Your task to perform on an android device: Open the web browser Image 0: 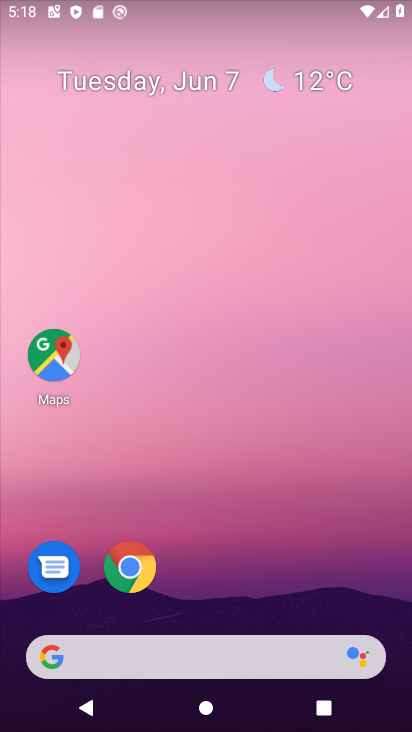
Step 0: drag from (196, 522) to (128, 44)
Your task to perform on an android device: Open the web browser Image 1: 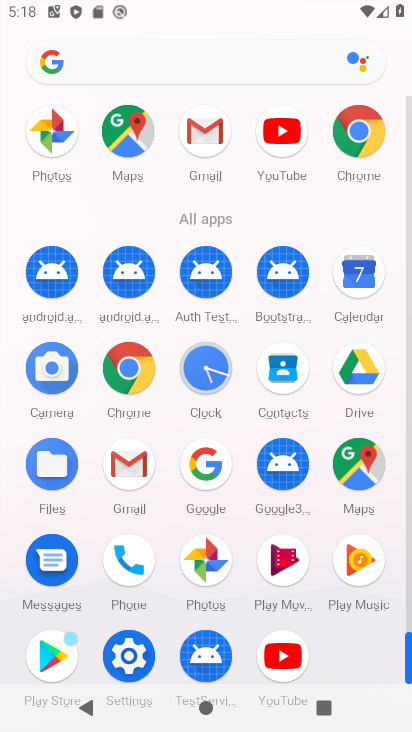
Step 1: click (131, 364)
Your task to perform on an android device: Open the web browser Image 2: 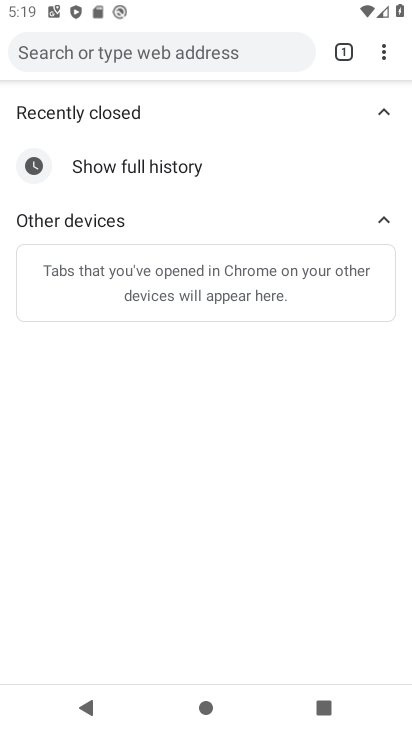
Step 2: task complete